Your task to perform on an android device: check android version Image 0: 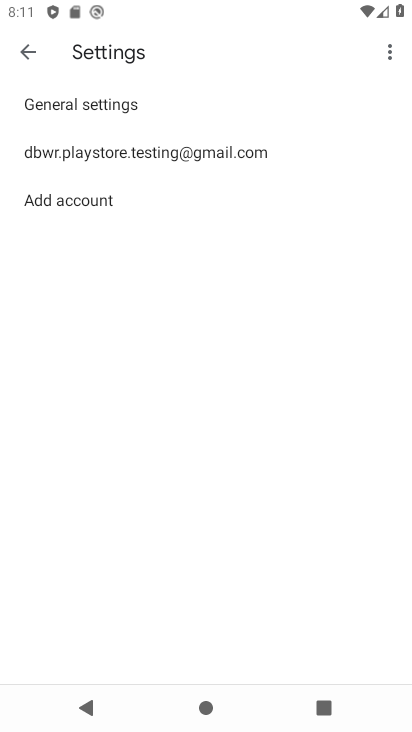
Step 0: press home button
Your task to perform on an android device: check android version Image 1: 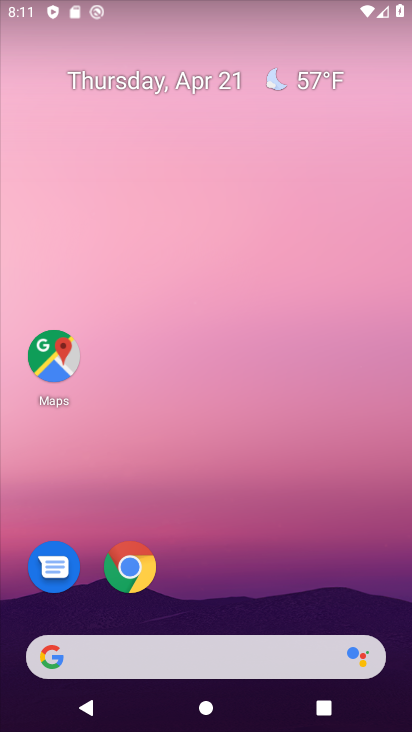
Step 1: drag from (220, 605) to (234, 103)
Your task to perform on an android device: check android version Image 2: 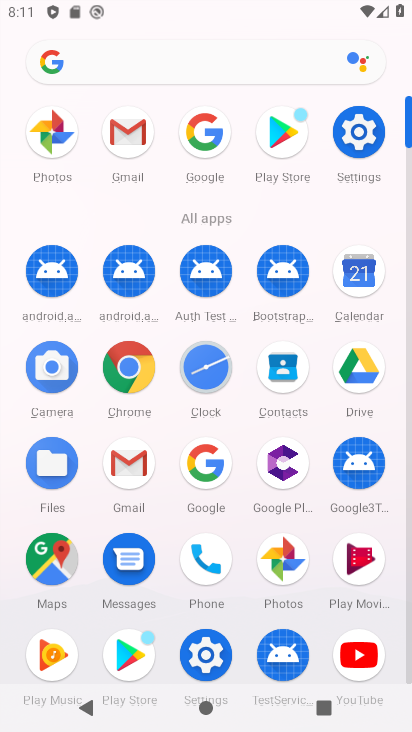
Step 2: click (363, 116)
Your task to perform on an android device: check android version Image 3: 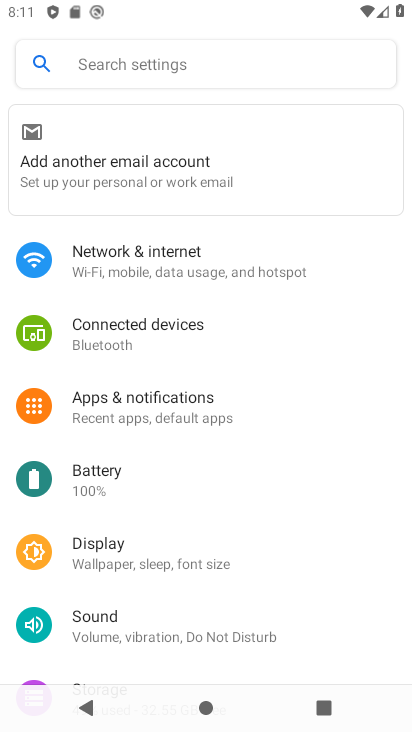
Step 3: drag from (204, 646) to (221, 238)
Your task to perform on an android device: check android version Image 4: 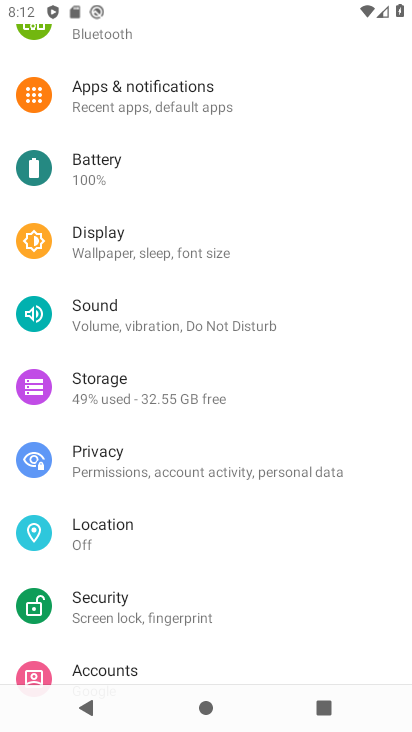
Step 4: drag from (238, 613) to (230, 135)
Your task to perform on an android device: check android version Image 5: 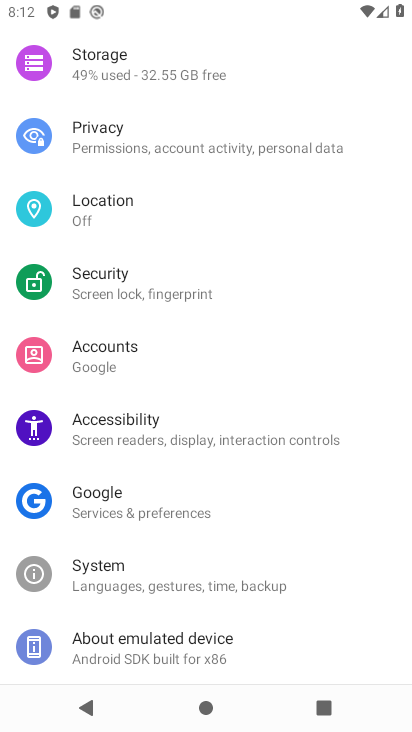
Step 5: drag from (195, 626) to (214, 227)
Your task to perform on an android device: check android version Image 6: 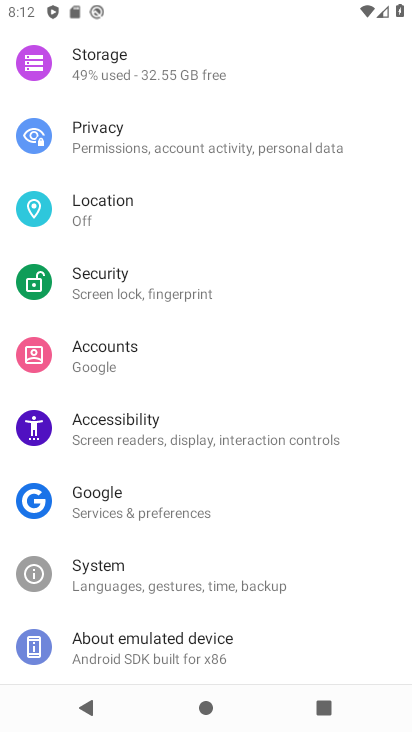
Step 6: click (132, 658)
Your task to perform on an android device: check android version Image 7: 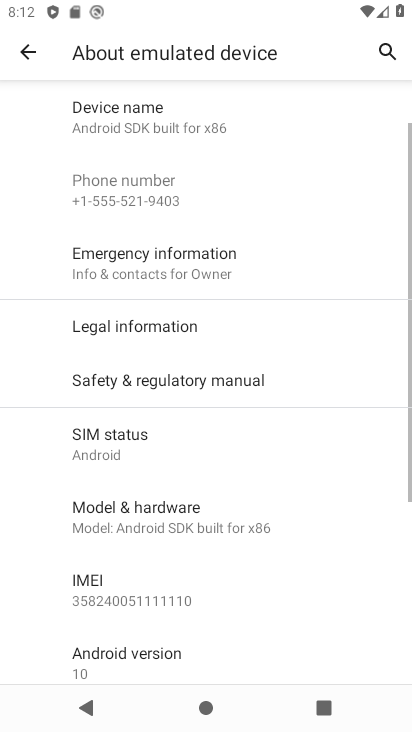
Step 7: drag from (206, 606) to (237, 314)
Your task to perform on an android device: check android version Image 8: 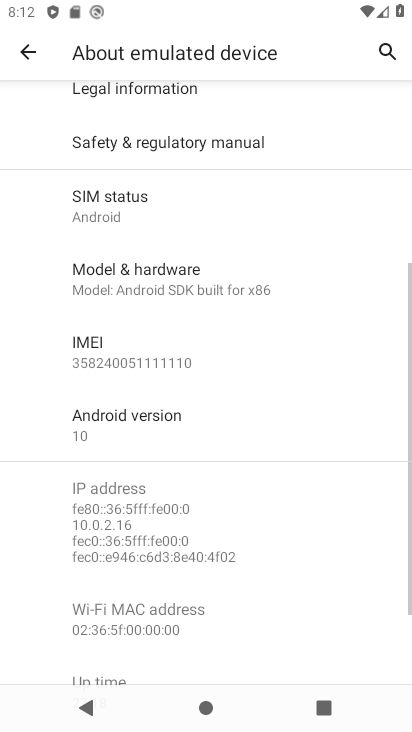
Step 8: click (154, 425)
Your task to perform on an android device: check android version Image 9: 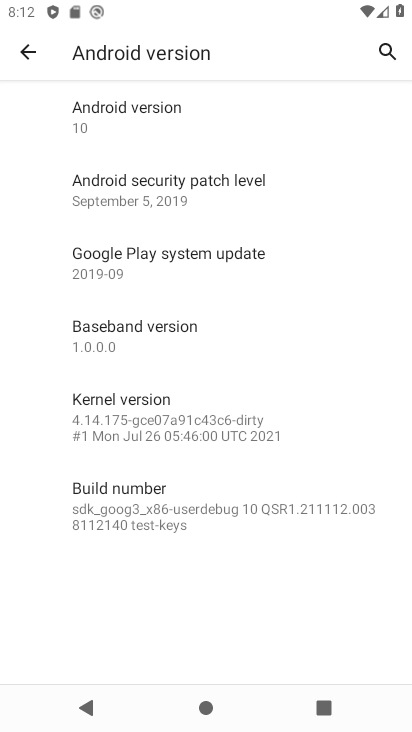
Step 9: click (164, 116)
Your task to perform on an android device: check android version Image 10: 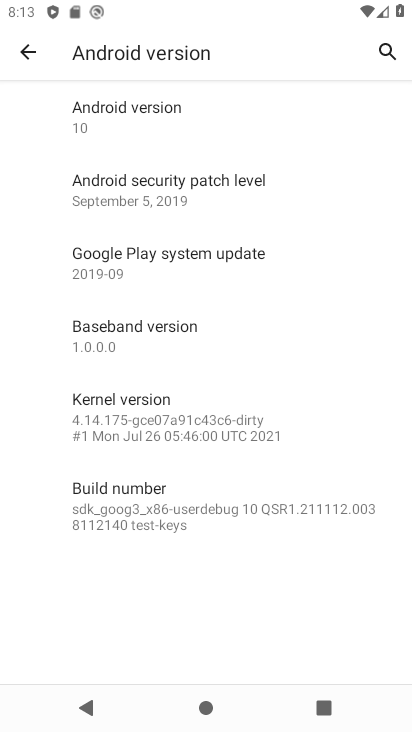
Step 10: task complete